Your task to perform on an android device: Go to display settings Image 0: 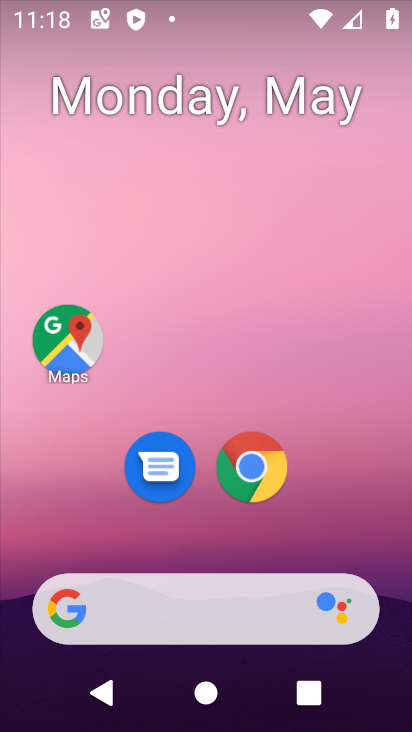
Step 0: drag from (197, 549) to (259, 57)
Your task to perform on an android device: Go to display settings Image 1: 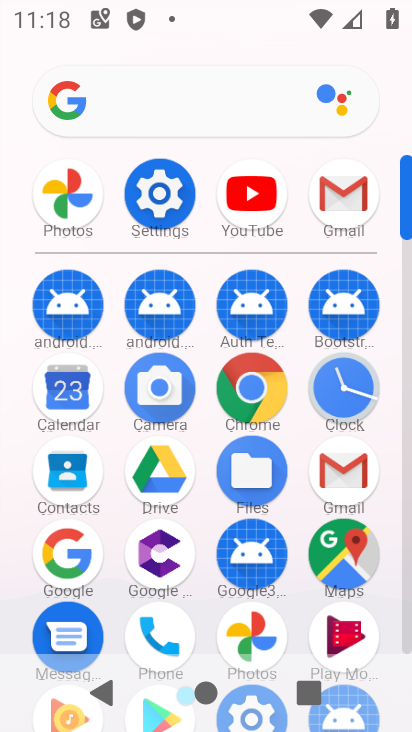
Step 1: click (167, 207)
Your task to perform on an android device: Go to display settings Image 2: 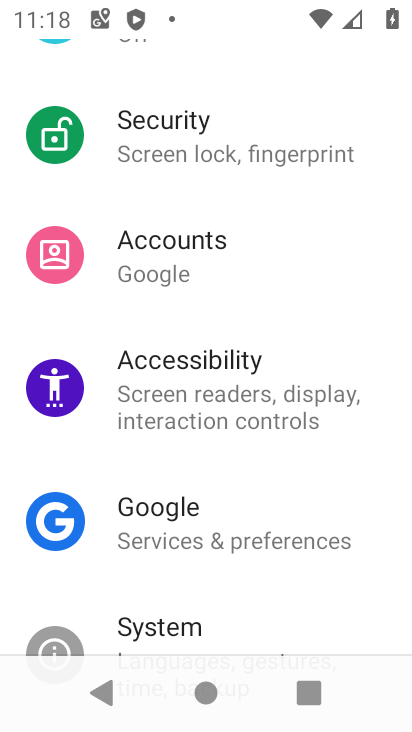
Step 2: drag from (154, 267) to (213, 425)
Your task to perform on an android device: Go to display settings Image 3: 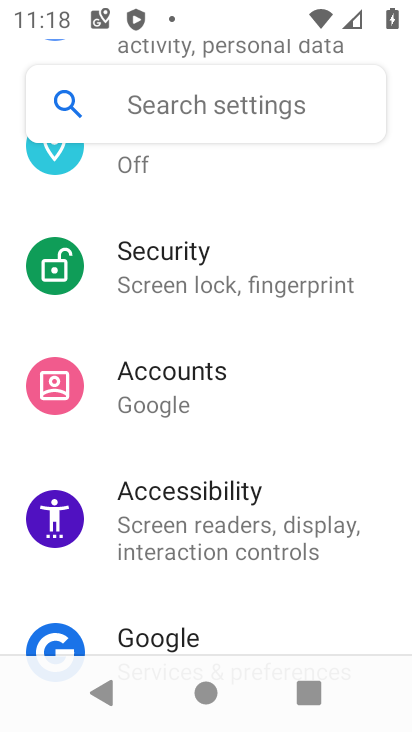
Step 3: drag from (188, 351) to (261, 507)
Your task to perform on an android device: Go to display settings Image 4: 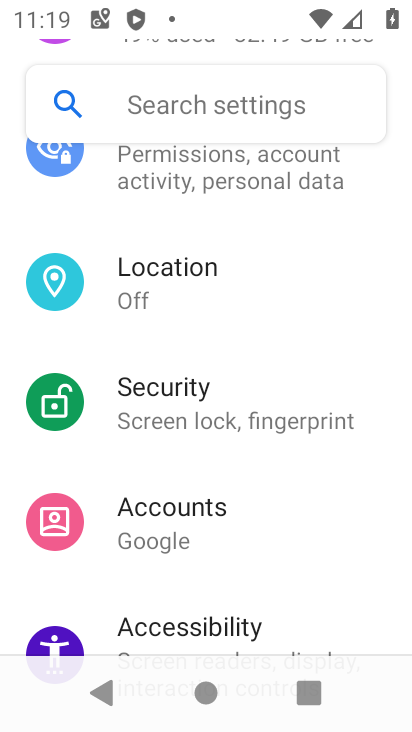
Step 4: drag from (219, 323) to (266, 475)
Your task to perform on an android device: Go to display settings Image 5: 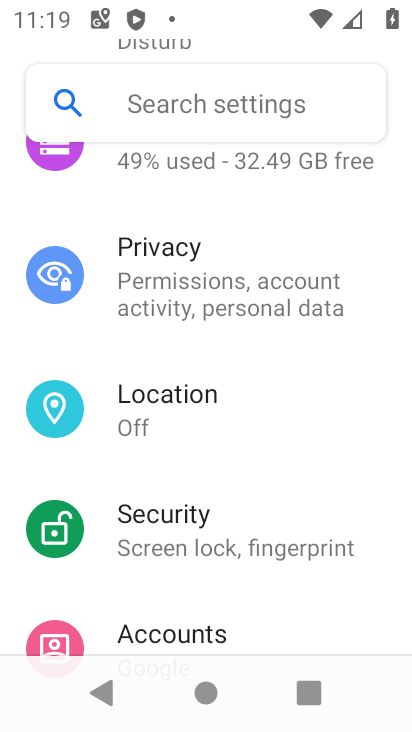
Step 5: drag from (243, 274) to (262, 450)
Your task to perform on an android device: Go to display settings Image 6: 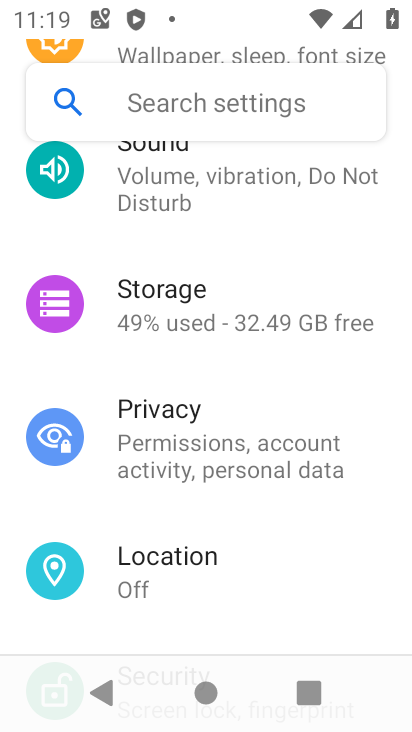
Step 6: drag from (168, 276) to (213, 484)
Your task to perform on an android device: Go to display settings Image 7: 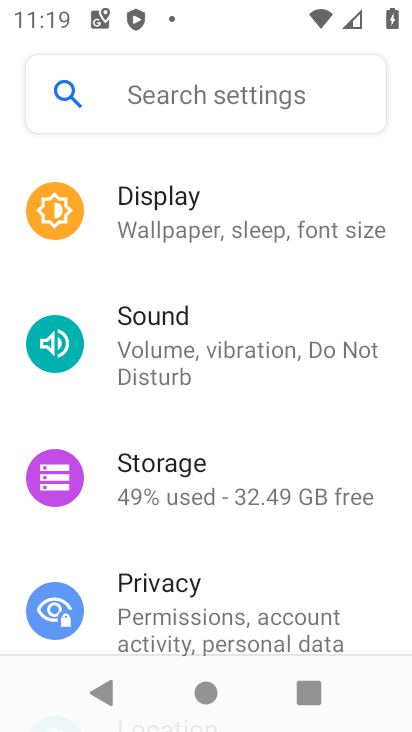
Step 7: drag from (154, 316) to (201, 484)
Your task to perform on an android device: Go to display settings Image 8: 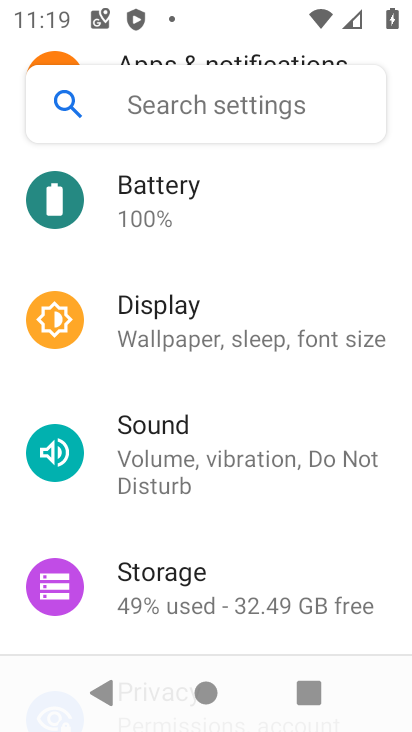
Step 8: click (209, 311)
Your task to perform on an android device: Go to display settings Image 9: 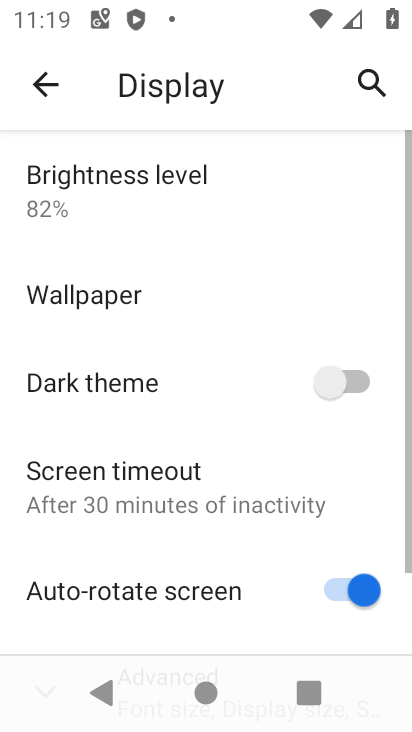
Step 9: click (198, 346)
Your task to perform on an android device: Go to display settings Image 10: 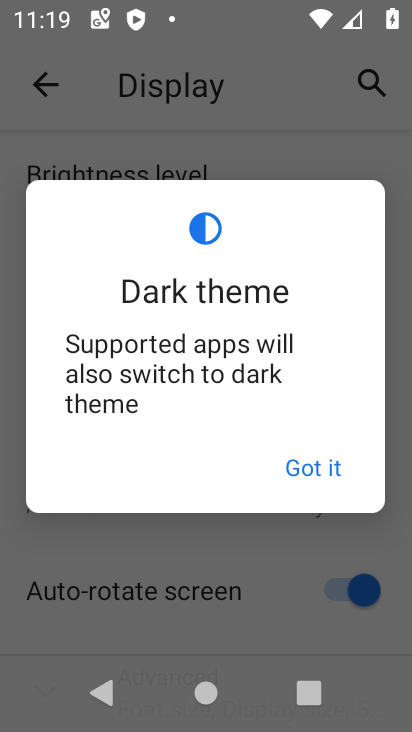
Step 10: click (202, 364)
Your task to perform on an android device: Go to display settings Image 11: 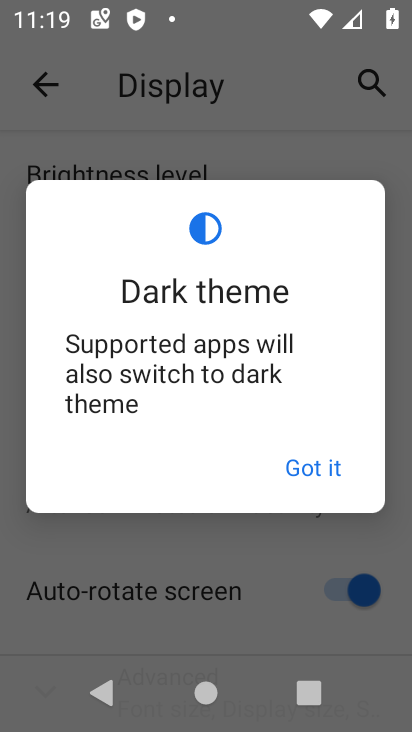
Step 11: click (205, 367)
Your task to perform on an android device: Go to display settings Image 12: 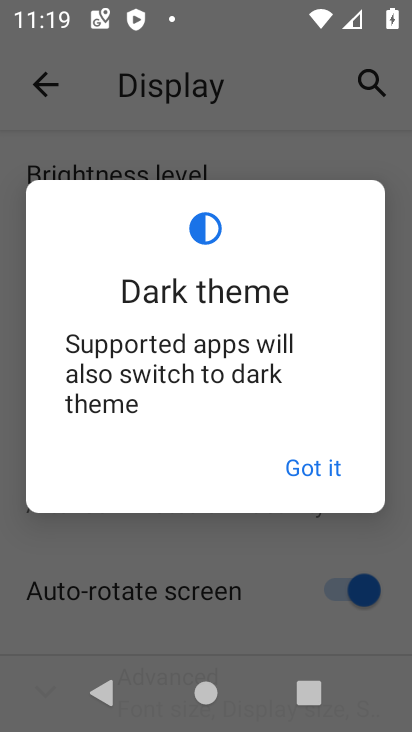
Step 12: click (205, 362)
Your task to perform on an android device: Go to display settings Image 13: 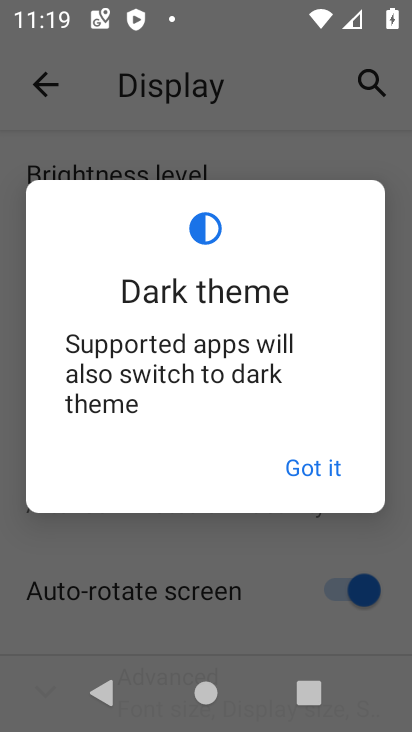
Step 13: click (205, 362)
Your task to perform on an android device: Go to display settings Image 14: 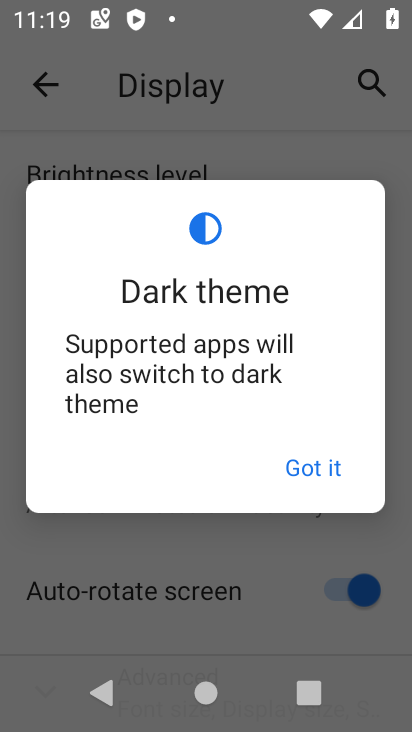
Step 14: click (205, 362)
Your task to perform on an android device: Go to display settings Image 15: 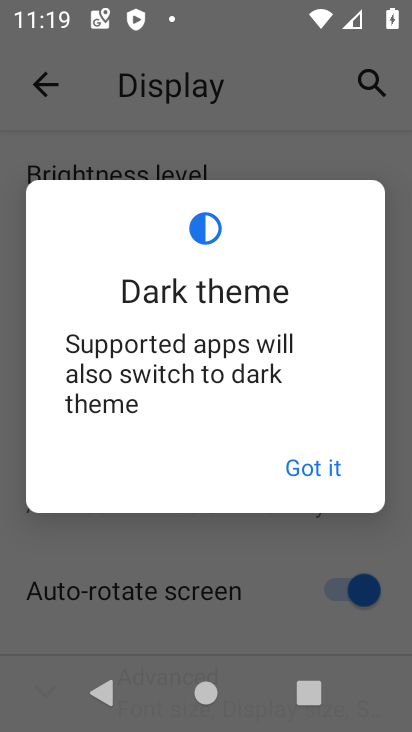
Step 15: task complete